Your task to perform on an android device: Is it going to rain today? Image 0: 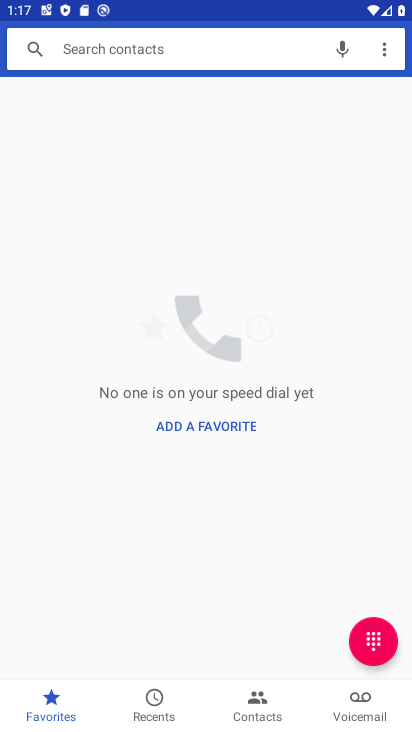
Step 0: press home button
Your task to perform on an android device: Is it going to rain today? Image 1: 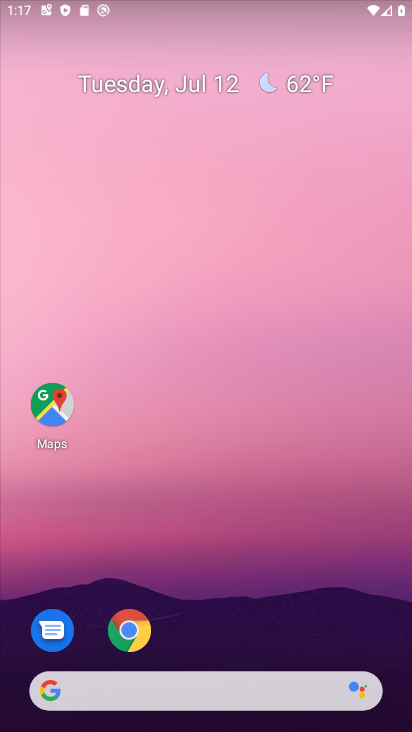
Step 1: drag from (218, 652) to (268, 102)
Your task to perform on an android device: Is it going to rain today? Image 2: 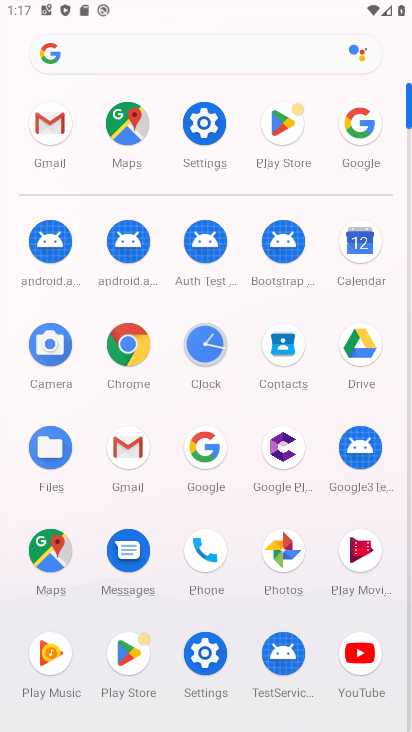
Step 2: click (360, 120)
Your task to perform on an android device: Is it going to rain today? Image 3: 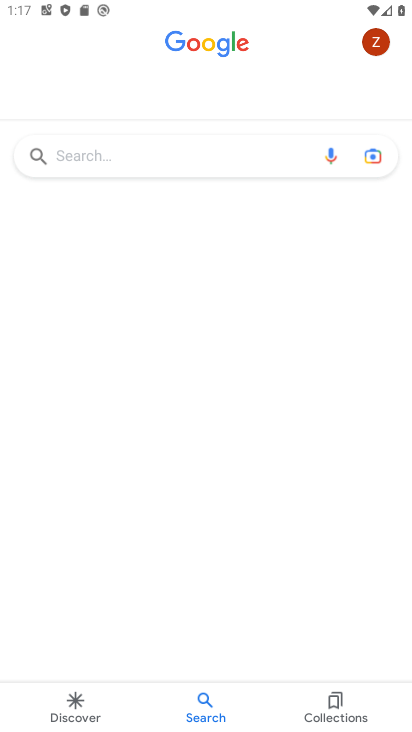
Step 3: click (156, 156)
Your task to perform on an android device: Is it going to rain today? Image 4: 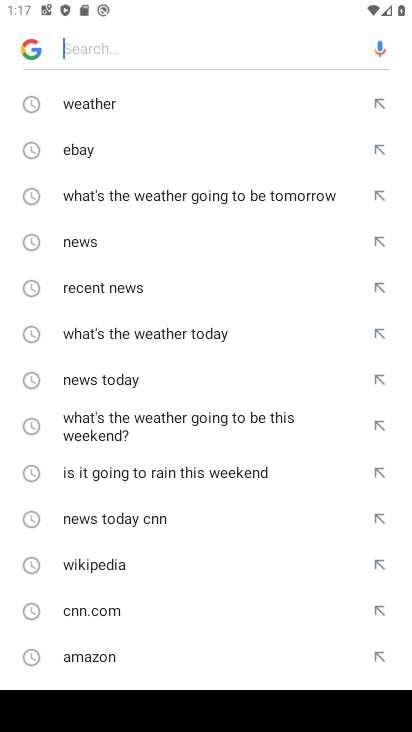
Step 4: type "Is it going to rain today?"
Your task to perform on an android device: Is it going to rain today? Image 5: 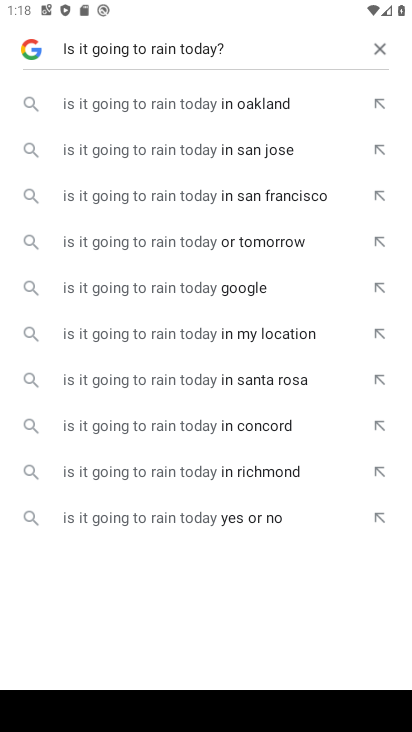
Step 5: click (380, 50)
Your task to perform on an android device: Is it going to rain today? Image 6: 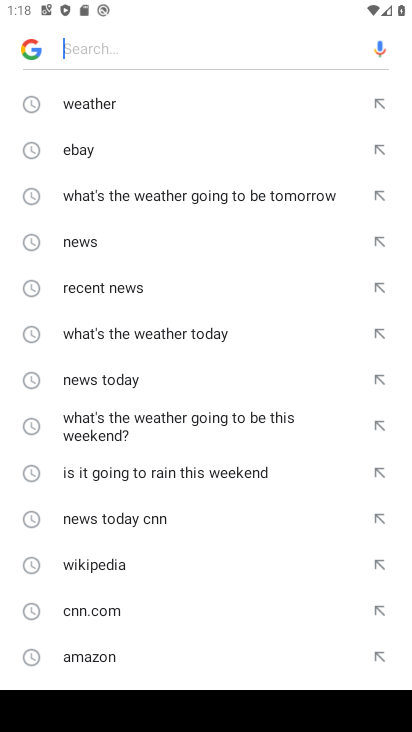
Step 6: task complete